Your task to perform on an android device: find photos in the google photos app Image 0: 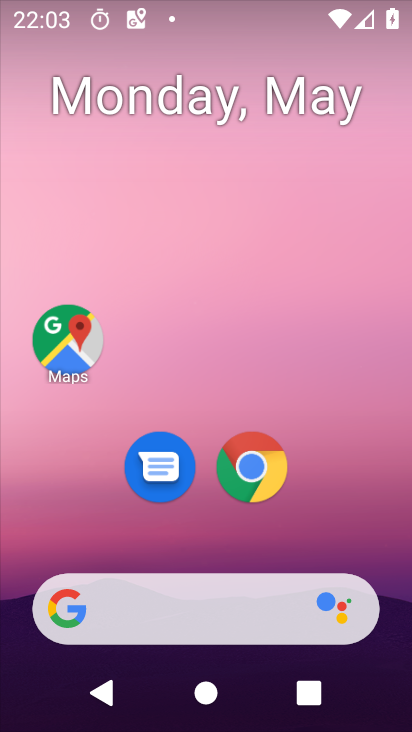
Step 0: press home button
Your task to perform on an android device: find photos in the google photos app Image 1: 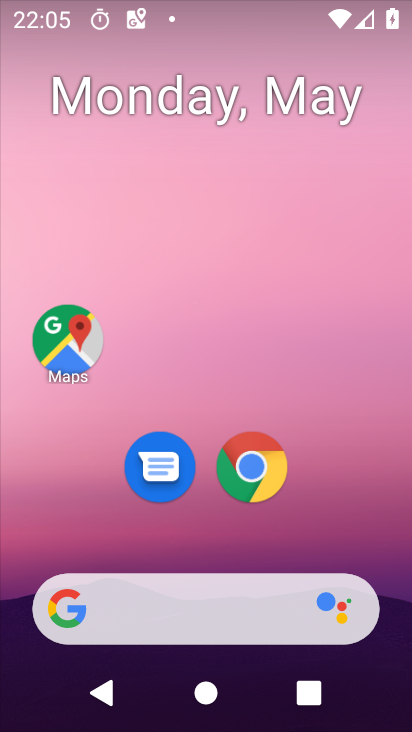
Step 1: drag from (240, 649) to (287, 156)
Your task to perform on an android device: find photos in the google photos app Image 2: 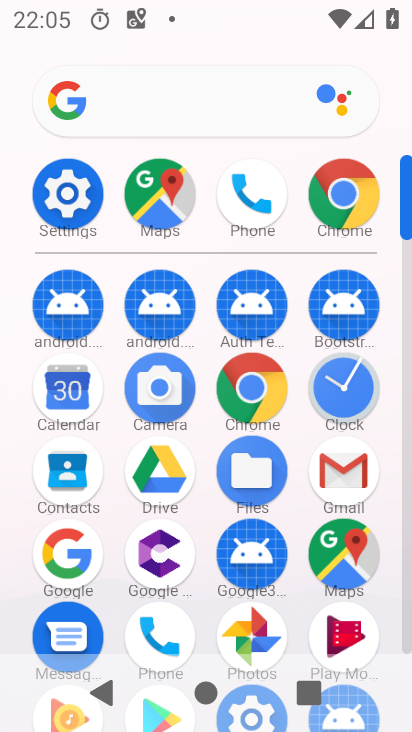
Step 2: click (250, 621)
Your task to perform on an android device: find photos in the google photos app Image 3: 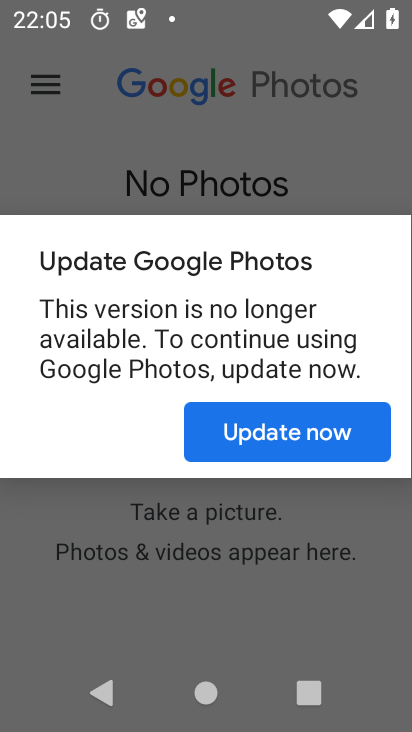
Step 3: click (311, 450)
Your task to perform on an android device: find photos in the google photos app Image 4: 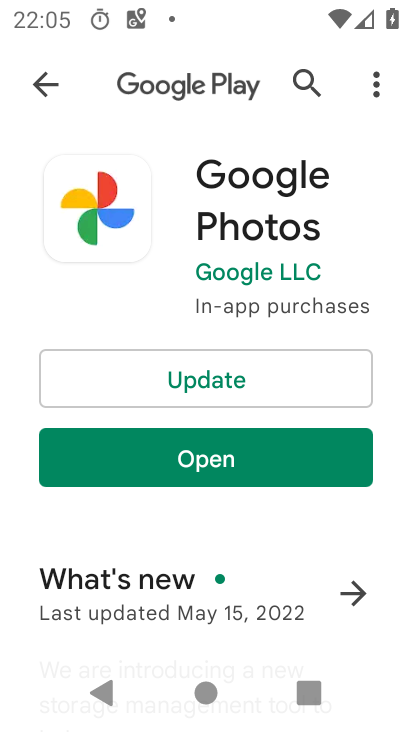
Step 4: click (251, 374)
Your task to perform on an android device: find photos in the google photos app Image 5: 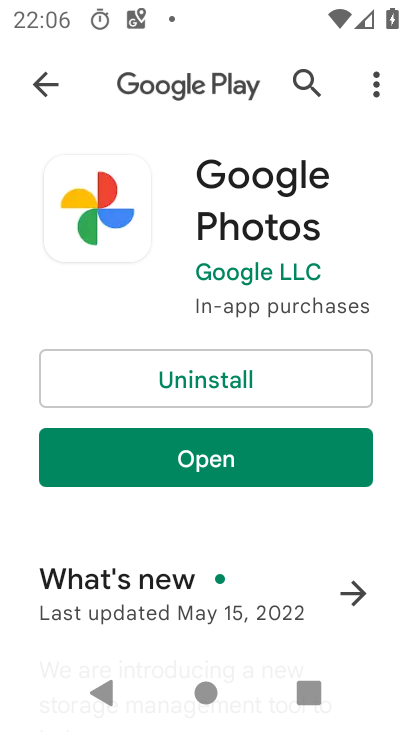
Step 5: click (186, 461)
Your task to perform on an android device: find photos in the google photos app Image 6: 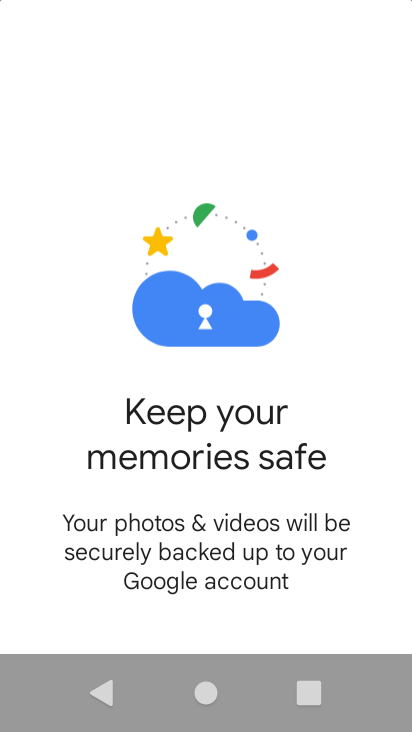
Step 6: task complete